Your task to perform on an android device: toggle notification dots Image 0: 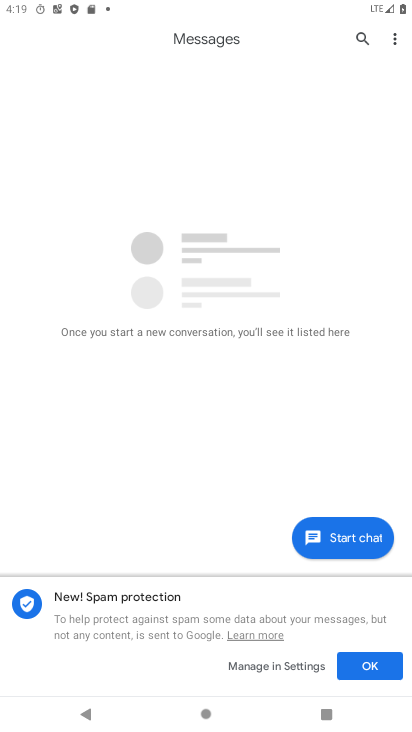
Step 0: press home button
Your task to perform on an android device: toggle notification dots Image 1: 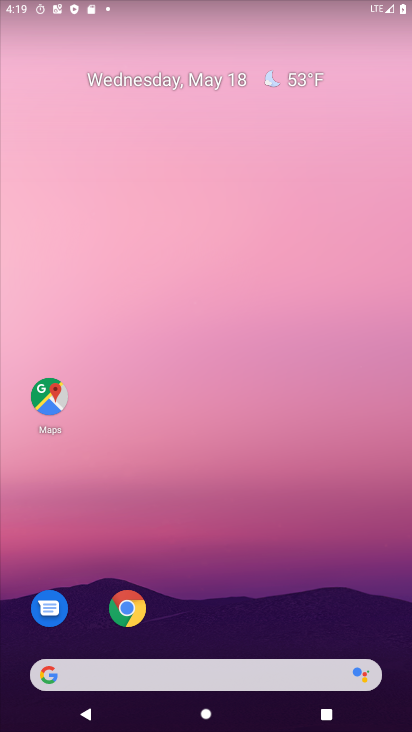
Step 1: drag from (261, 652) to (303, 137)
Your task to perform on an android device: toggle notification dots Image 2: 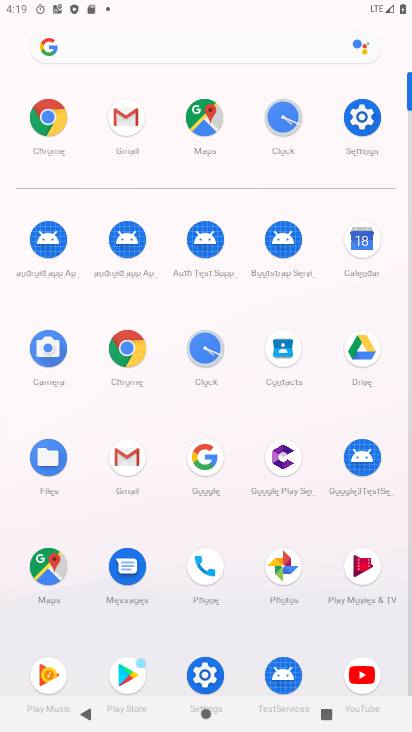
Step 2: click (354, 125)
Your task to perform on an android device: toggle notification dots Image 3: 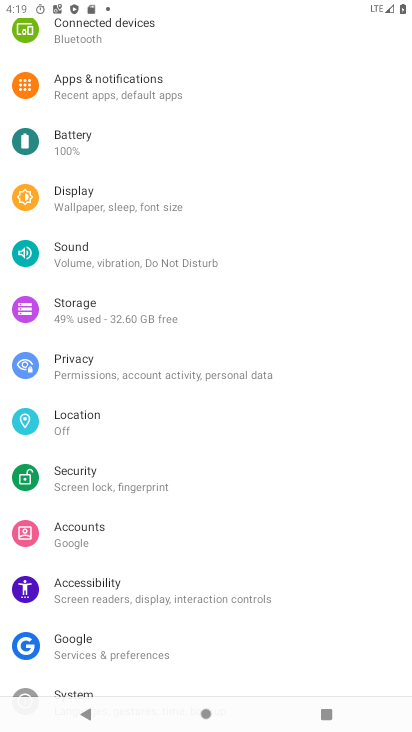
Step 3: click (123, 87)
Your task to perform on an android device: toggle notification dots Image 4: 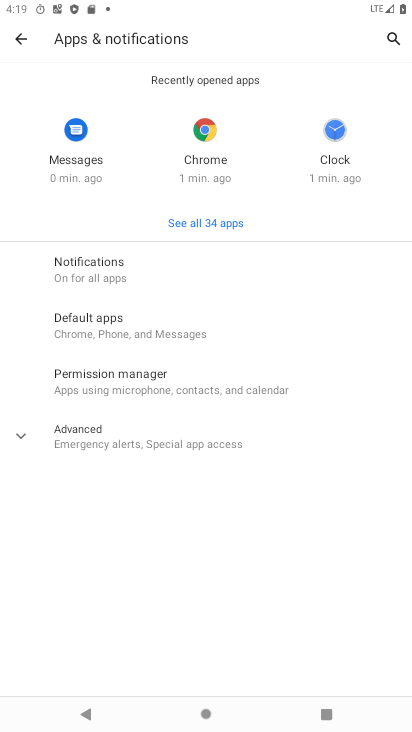
Step 4: click (134, 272)
Your task to perform on an android device: toggle notification dots Image 5: 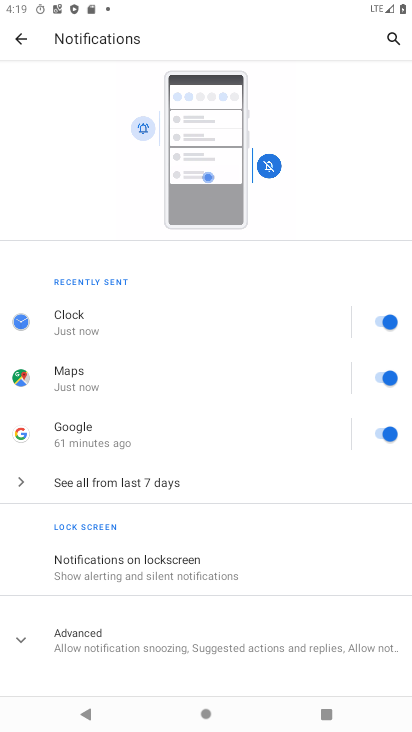
Step 5: click (192, 643)
Your task to perform on an android device: toggle notification dots Image 6: 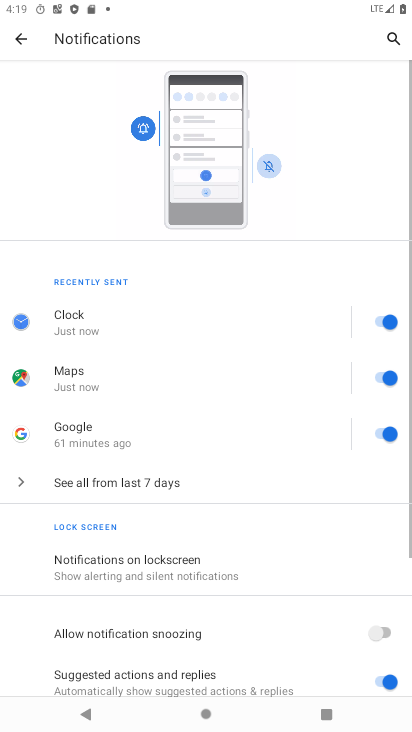
Step 6: drag from (217, 673) to (258, 213)
Your task to perform on an android device: toggle notification dots Image 7: 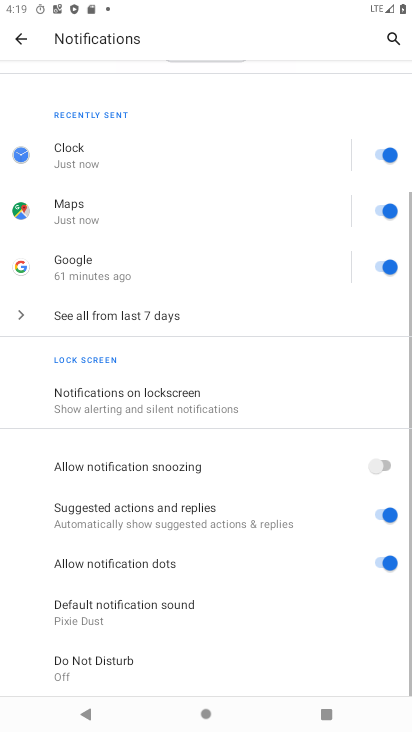
Step 7: drag from (282, 635) to (268, 413)
Your task to perform on an android device: toggle notification dots Image 8: 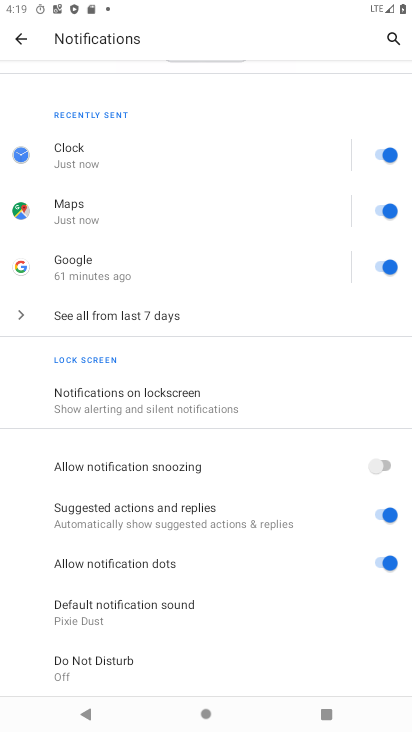
Step 8: click (379, 557)
Your task to perform on an android device: toggle notification dots Image 9: 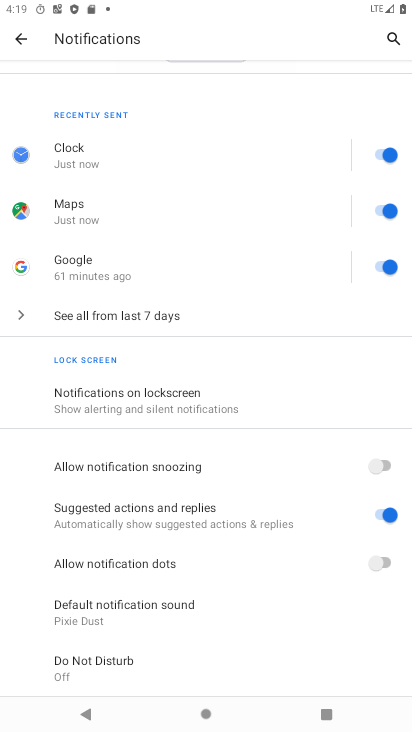
Step 9: task complete